Your task to perform on an android device: open a new tab in the chrome app Image 0: 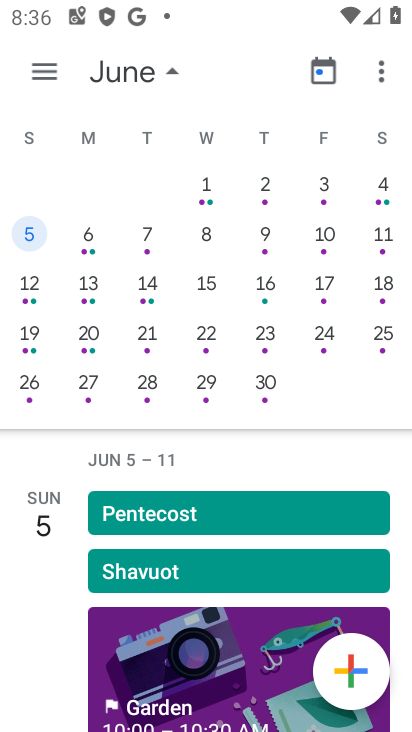
Step 0: press home button
Your task to perform on an android device: open a new tab in the chrome app Image 1: 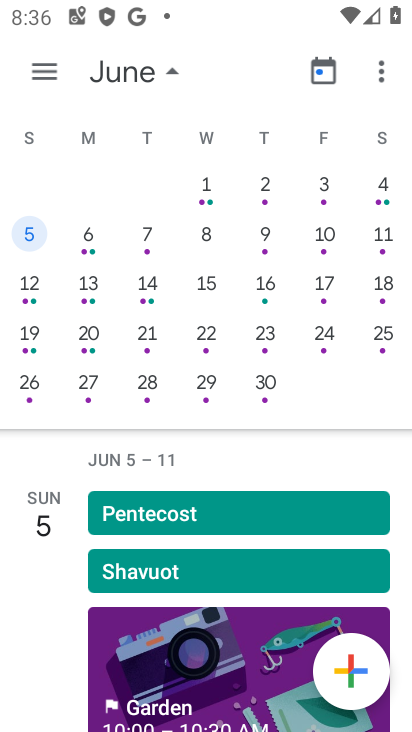
Step 1: press home button
Your task to perform on an android device: open a new tab in the chrome app Image 2: 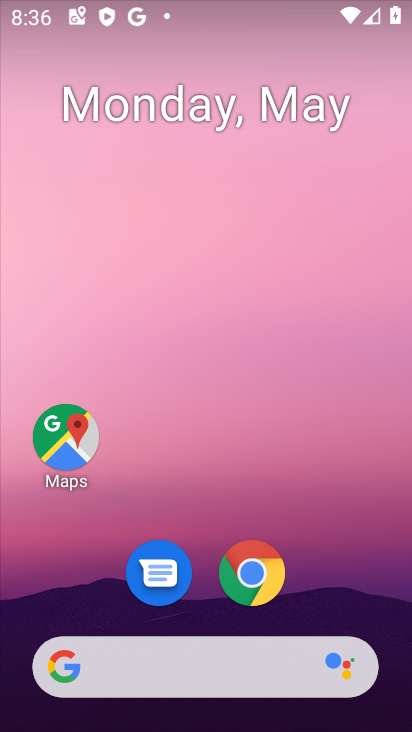
Step 2: click (273, 568)
Your task to perform on an android device: open a new tab in the chrome app Image 3: 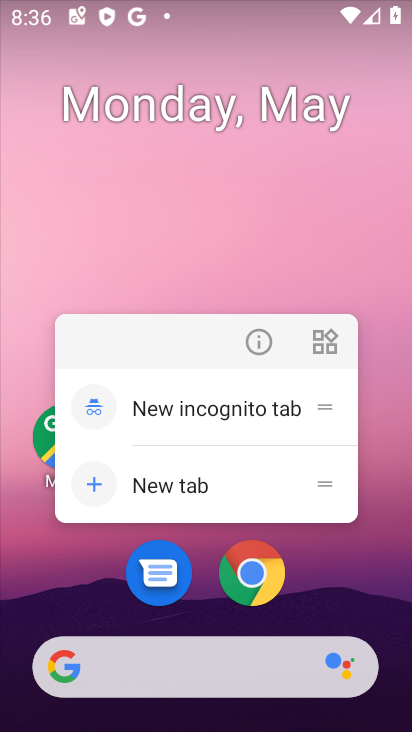
Step 3: click (263, 585)
Your task to perform on an android device: open a new tab in the chrome app Image 4: 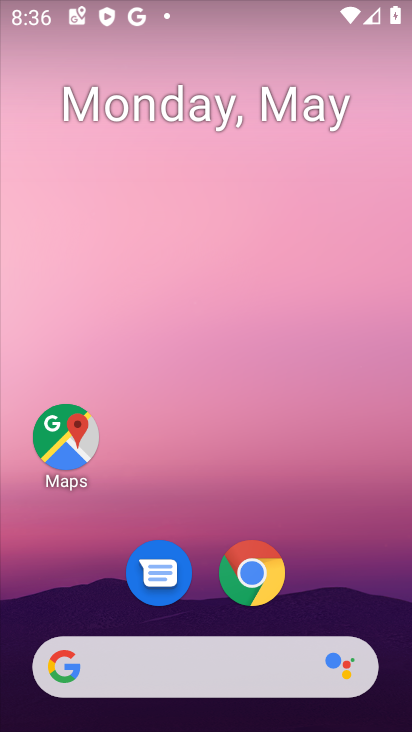
Step 4: click (242, 571)
Your task to perform on an android device: open a new tab in the chrome app Image 5: 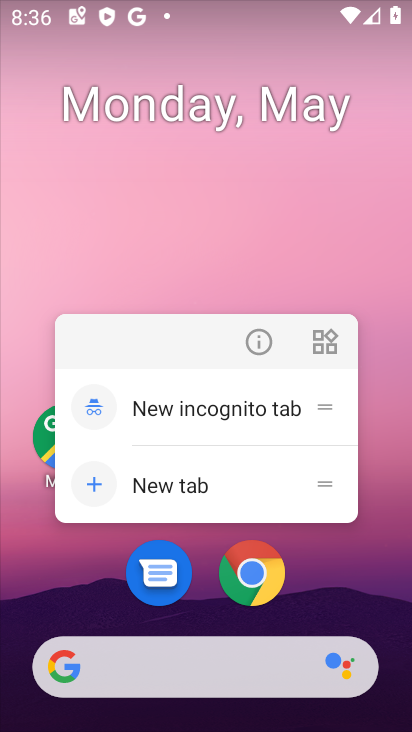
Step 5: click (259, 574)
Your task to perform on an android device: open a new tab in the chrome app Image 6: 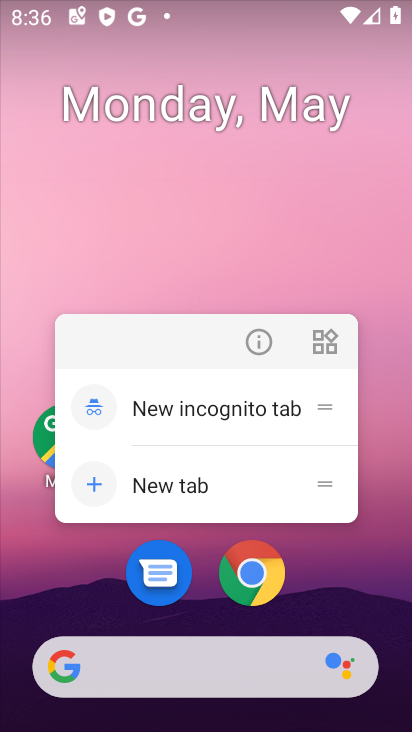
Step 6: click (270, 590)
Your task to perform on an android device: open a new tab in the chrome app Image 7: 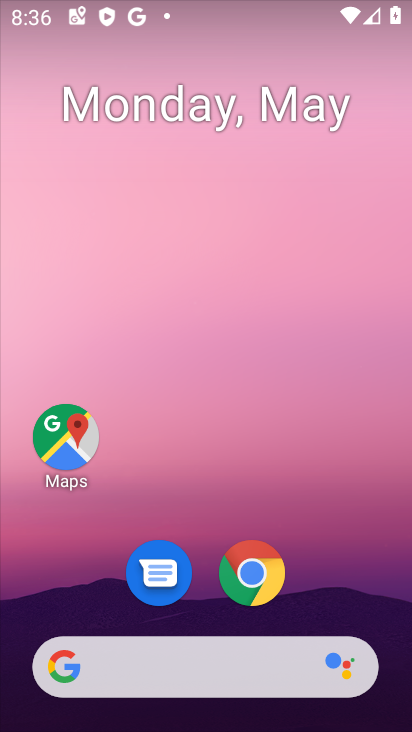
Step 7: click (231, 603)
Your task to perform on an android device: open a new tab in the chrome app Image 8: 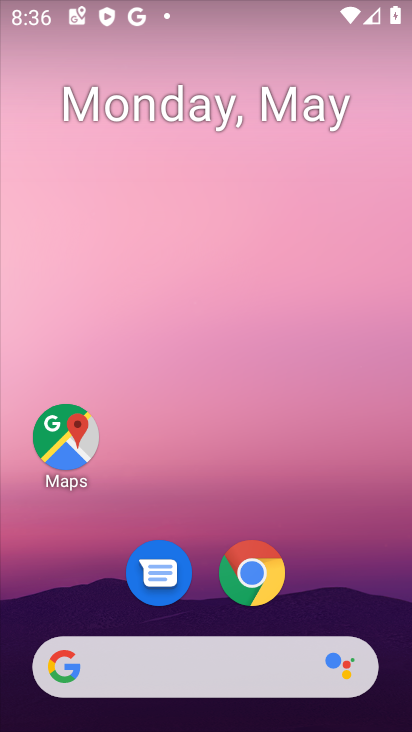
Step 8: click (260, 575)
Your task to perform on an android device: open a new tab in the chrome app Image 9: 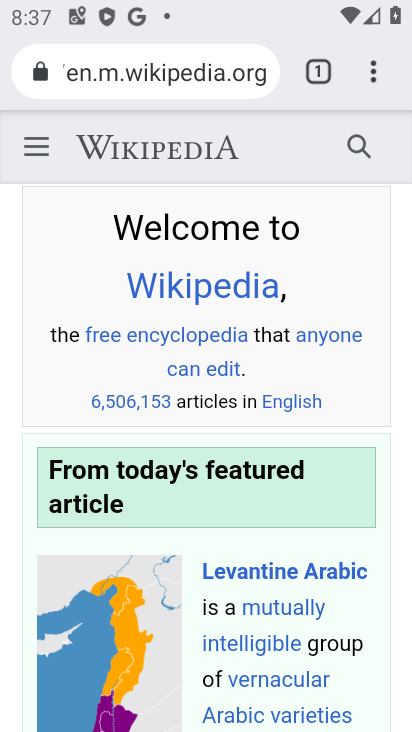
Step 9: drag from (321, 64) to (323, 210)
Your task to perform on an android device: open a new tab in the chrome app Image 10: 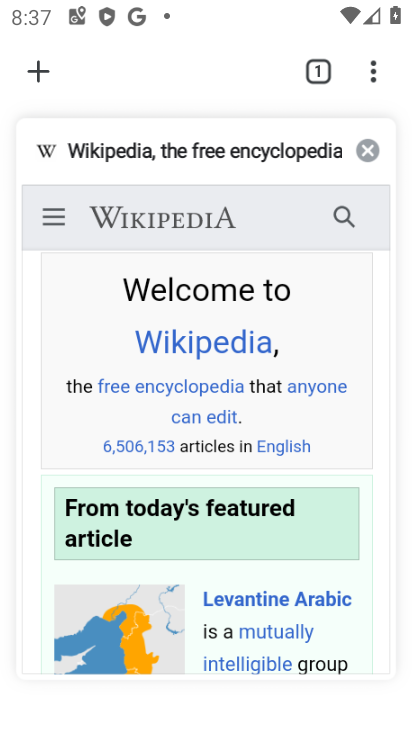
Step 10: click (35, 78)
Your task to perform on an android device: open a new tab in the chrome app Image 11: 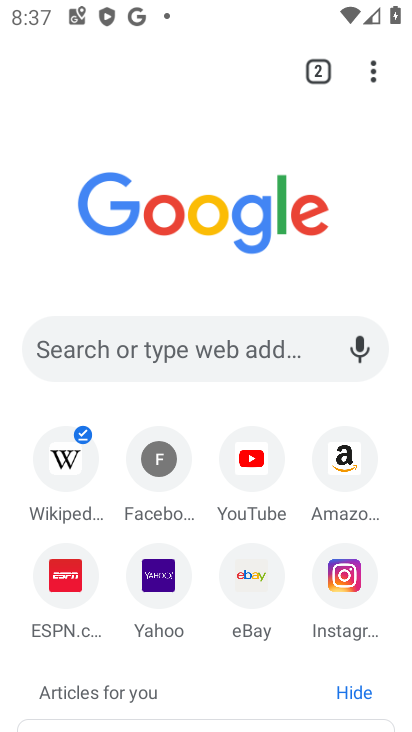
Step 11: drag from (334, 69) to (349, 129)
Your task to perform on an android device: open a new tab in the chrome app Image 12: 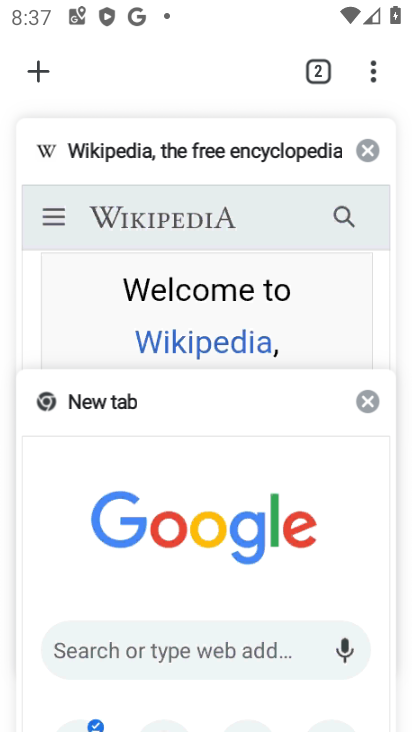
Step 12: click (40, 75)
Your task to perform on an android device: open a new tab in the chrome app Image 13: 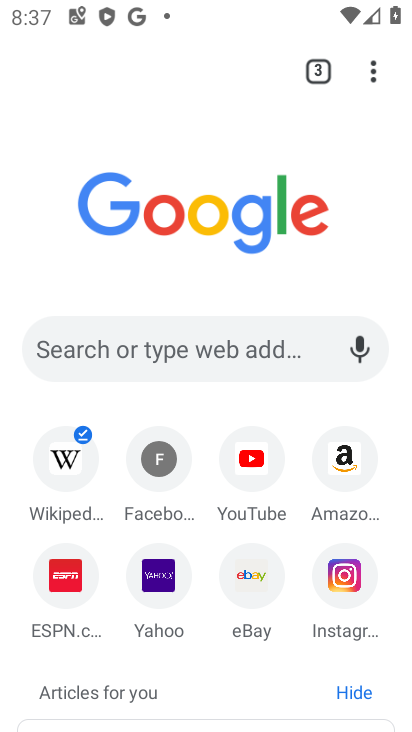
Step 13: task complete